Your task to perform on an android device: Go to Yahoo.com Image 0: 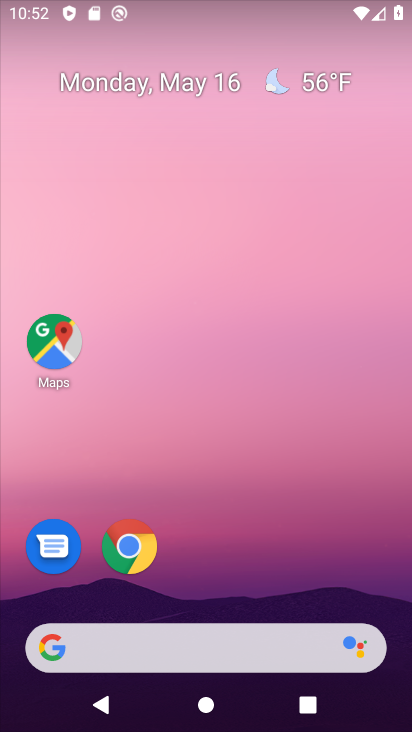
Step 0: drag from (334, 556) to (265, 38)
Your task to perform on an android device: Go to Yahoo.com Image 1: 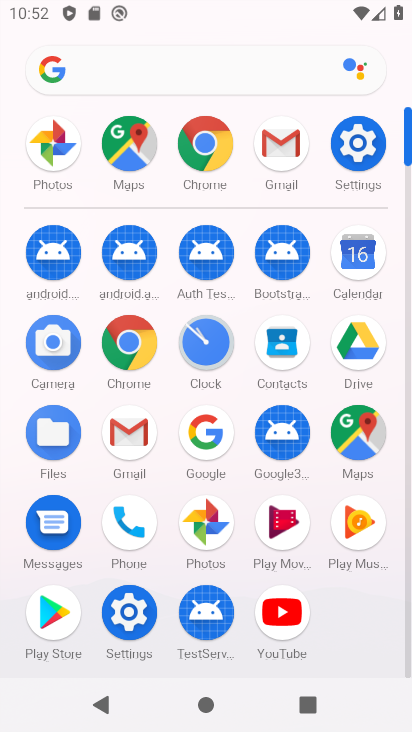
Step 1: click (208, 147)
Your task to perform on an android device: Go to Yahoo.com Image 2: 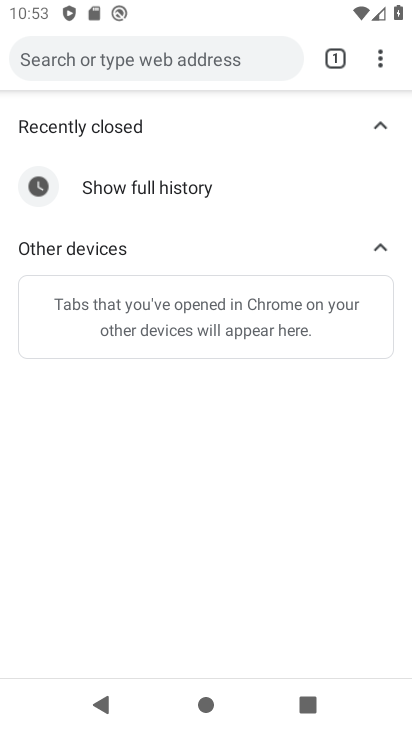
Step 2: click (188, 57)
Your task to perform on an android device: Go to Yahoo.com Image 3: 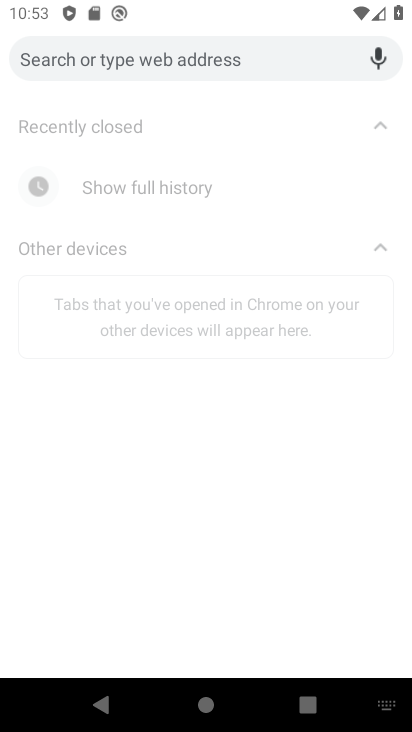
Step 3: type "yahooo"
Your task to perform on an android device: Go to Yahoo.com Image 4: 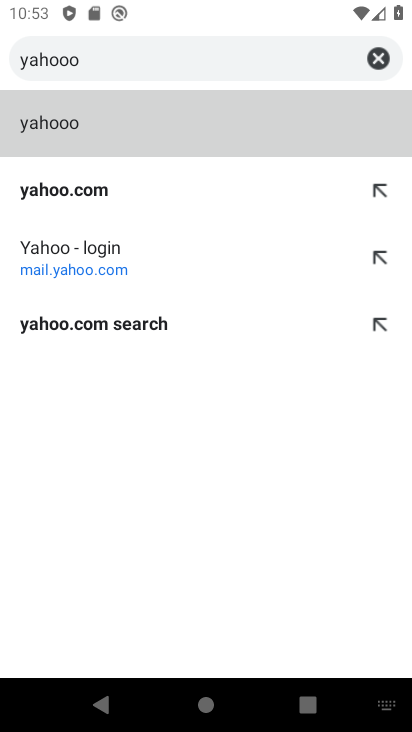
Step 4: click (35, 195)
Your task to perform on an android device: Go to Yahoo.com Image 5: 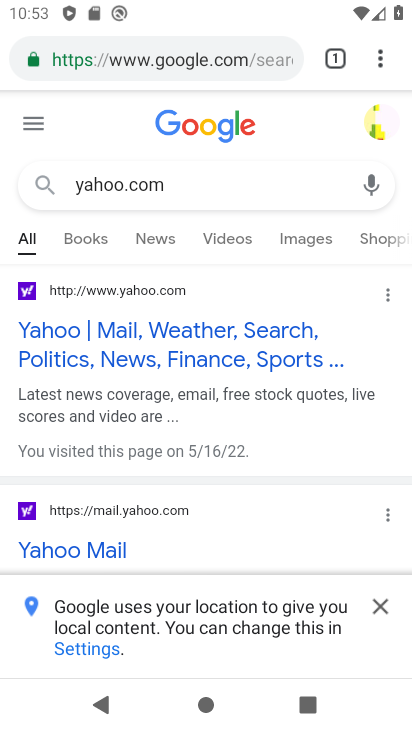
Step 5: click (83, 338)
Your task to perform on an android device: Go to Yahoo.com Image 6: 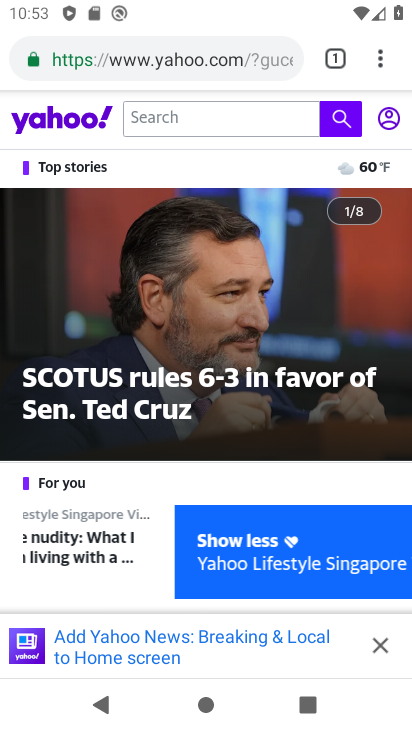
Step 6: task complete